Your task to perform on an android device: open device folders in google photos Image 0: 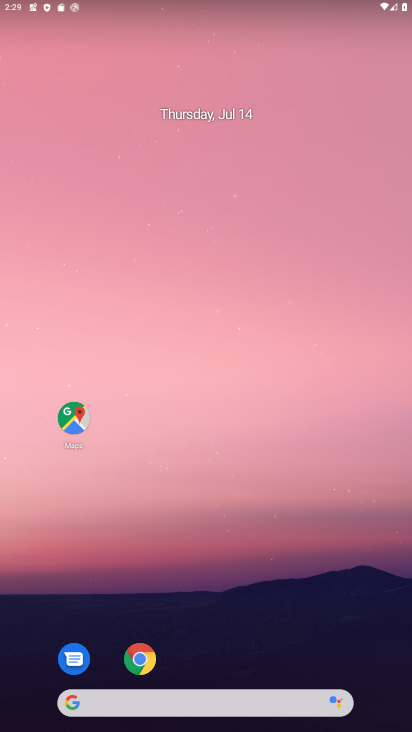
Step 0: press home button
Your task to perform on an android device: open device folders in google photos Image 1: 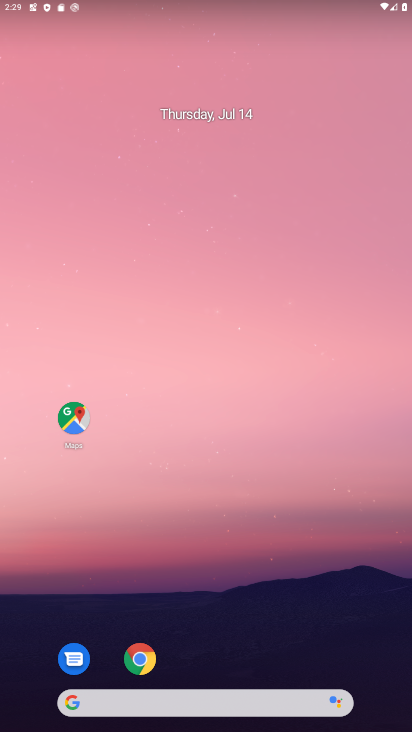
Step 1: drag from (254, 658) to (267, 191)
Your task to perform on an android device: open device folders in google photos Image 2: 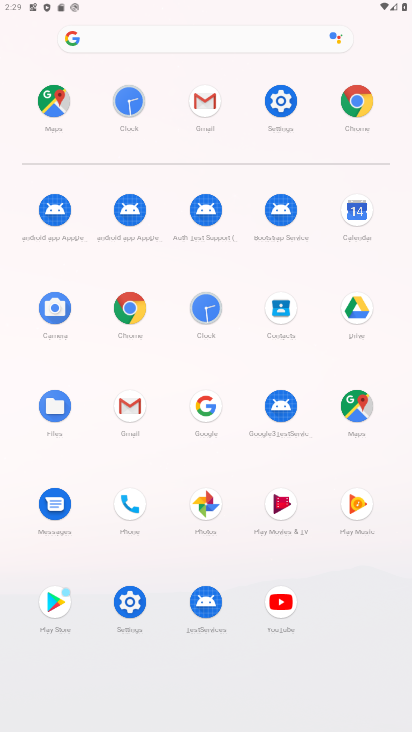
Step 2: click (207, 512)
Your task to perform on an android device: open device folders in google photos Image 3: 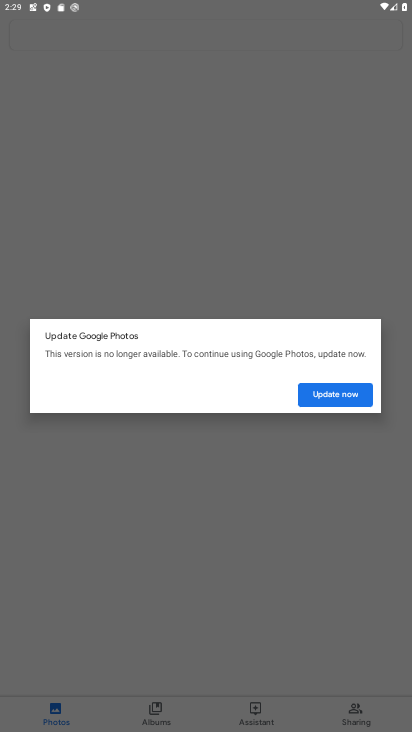
Step 3: click (337, 390)
Your task to perform on an android device: open device folders in google photos Image 4: 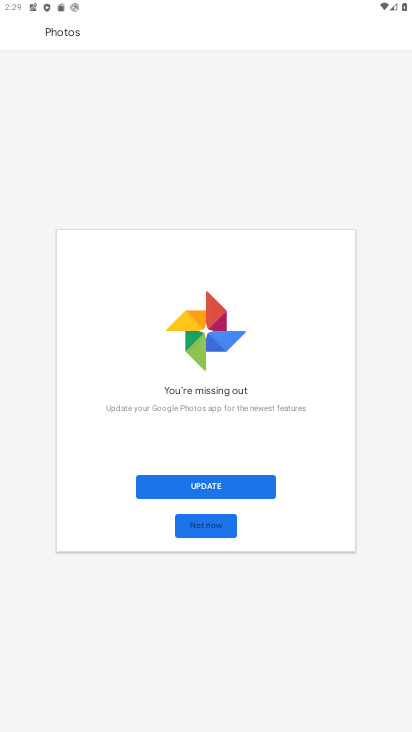
Step 4: click (189, 481)
Your task to perform on an android device: open device folders in google photos Image 5: 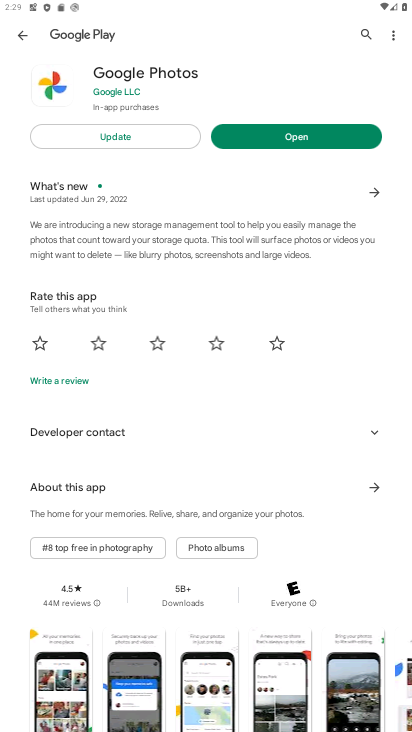
Step 5: click (109, 135)
Your task to perform on an android device: open device folders in google photos Image 6: 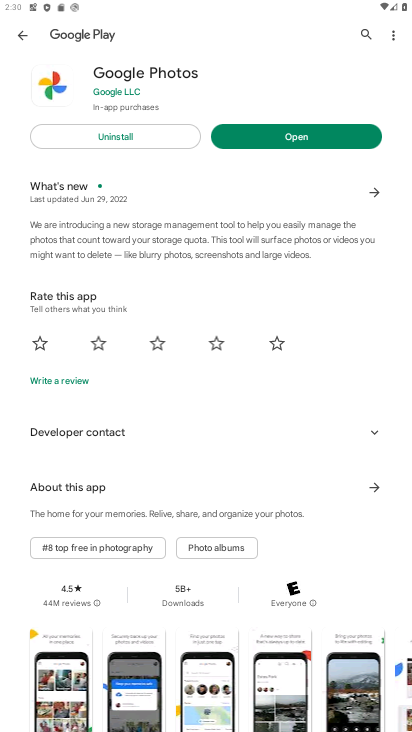
Step 6: click (252, 134)
Your task to perform on an android device: open device folders in google photos Image 7: 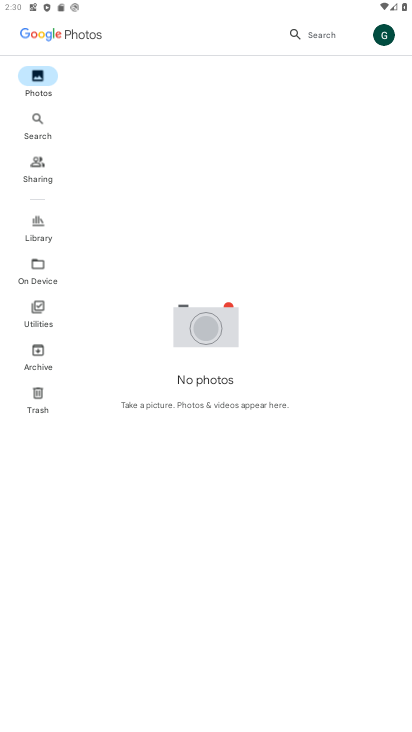
Step 7: click (392, 29)
Your task to perform on an android device: open device folders in google photos Image 8: 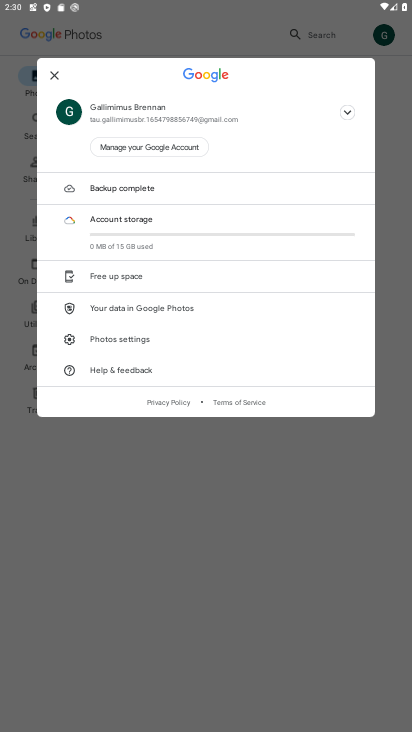
Step 8: click (57, 88)
Your task to perform on an android device: open device folders in google photos Image 9: 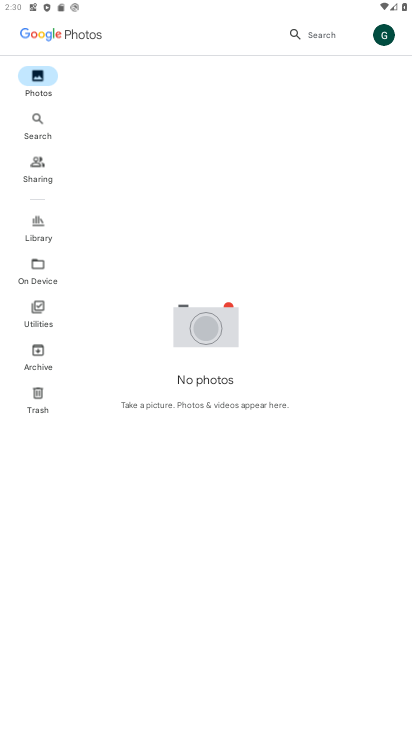
Step 9: click (30, 272)
Your task to perform on an android device: open device folders in google photos Image 10: 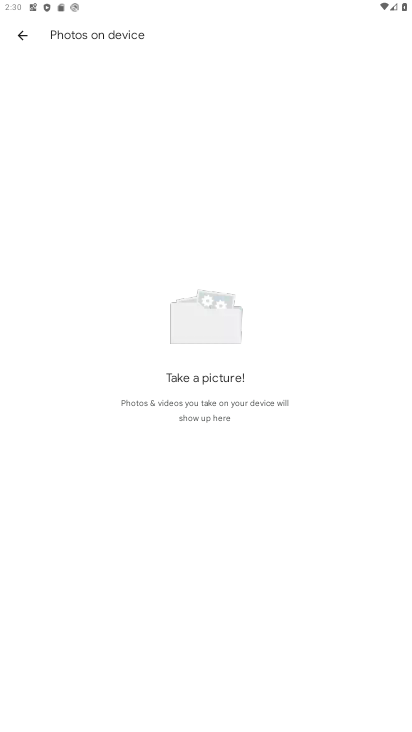
Step 10: task complete